Your task to perform on an android device: open app "Airtel Thanks" Image 0: 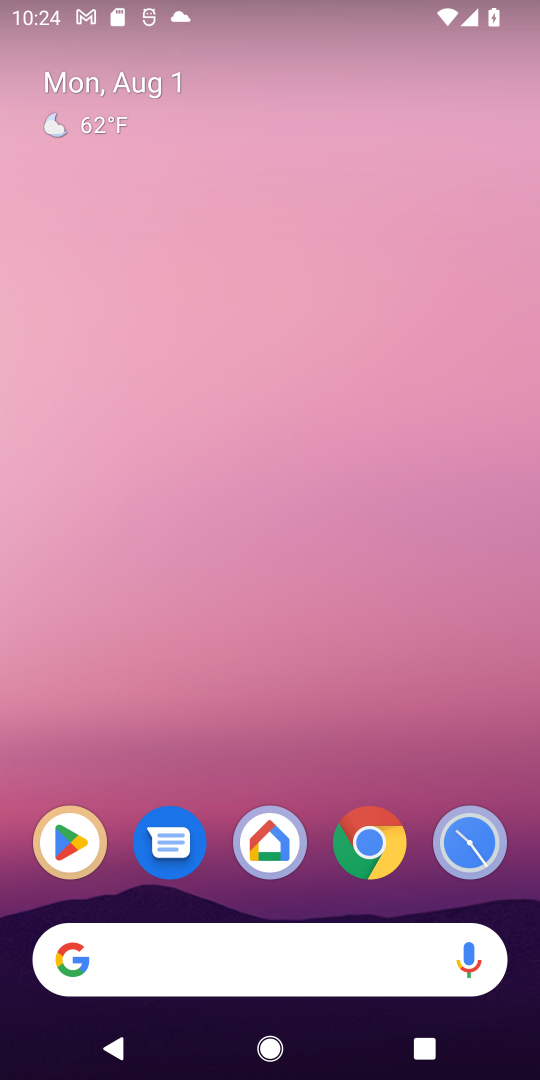
Step 0: click (69, 865)
Your task to perform on an android device: open app "Airtel Thanks" Image 1: 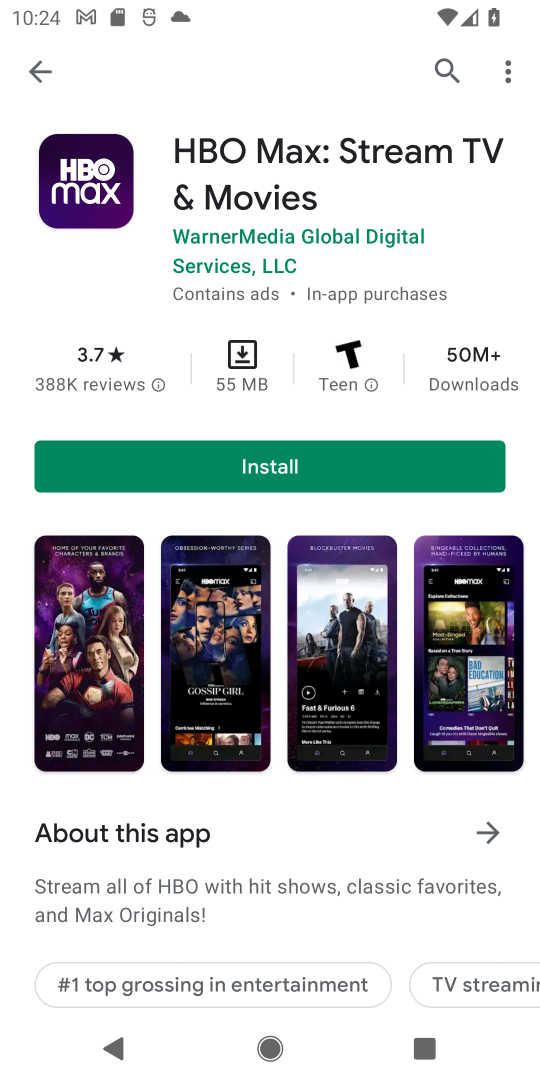
Step 1: click (441, 65)
Your task to perform on an android device: open app "Airtel Thanks" Image 2: 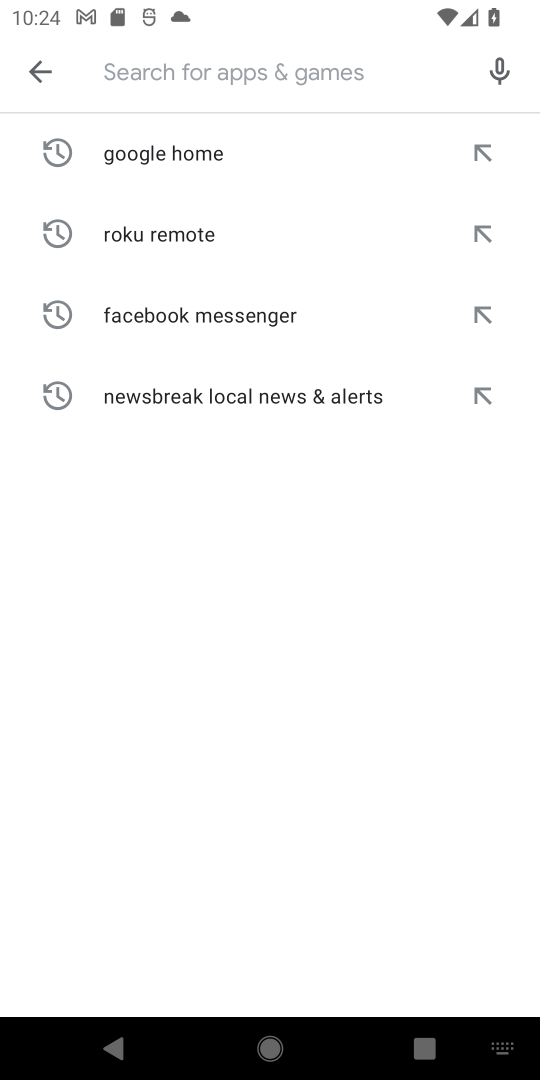
Step 2: click (161, 69)
Your task to perform on an android device: open app "Airtel Thanks" Image 3: 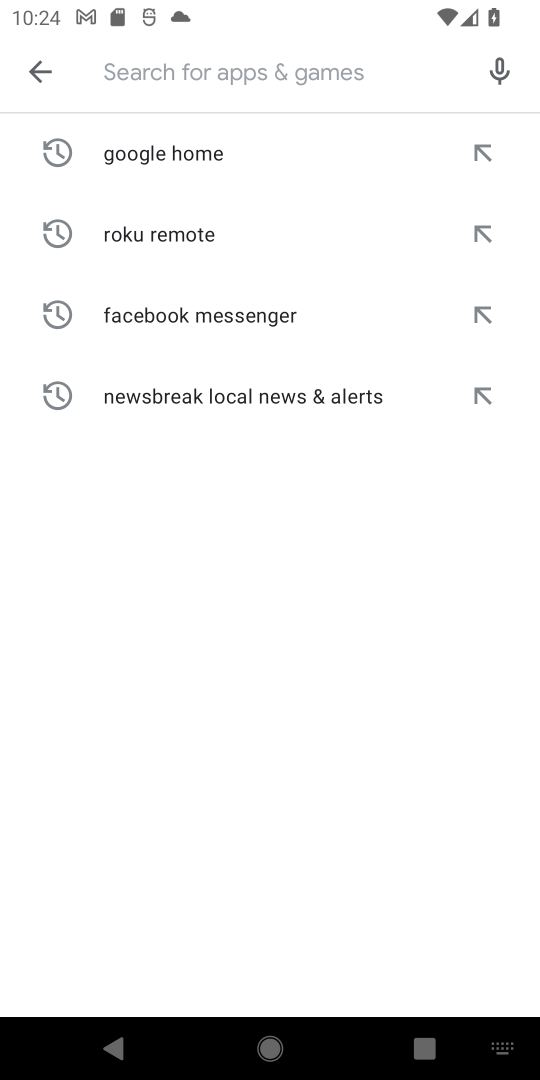
Step 3: type "Airtel Thanks"
Your task to perform on an android device: open app "Airtel Thanks" Image 4: 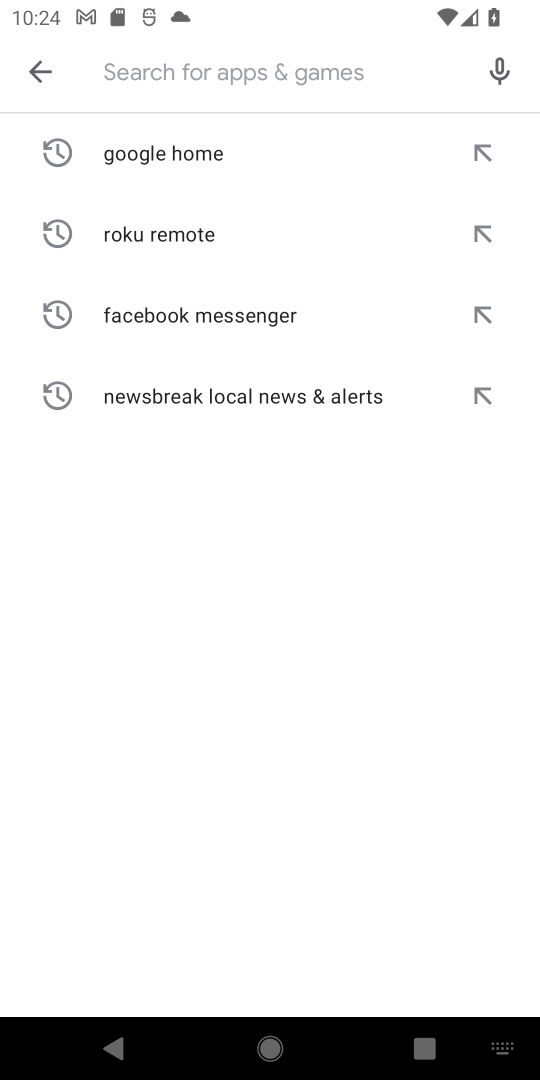
Step 4: click (207, 572)
Your task to perform on an android device: open app "Airtel Thanks" Image 5: 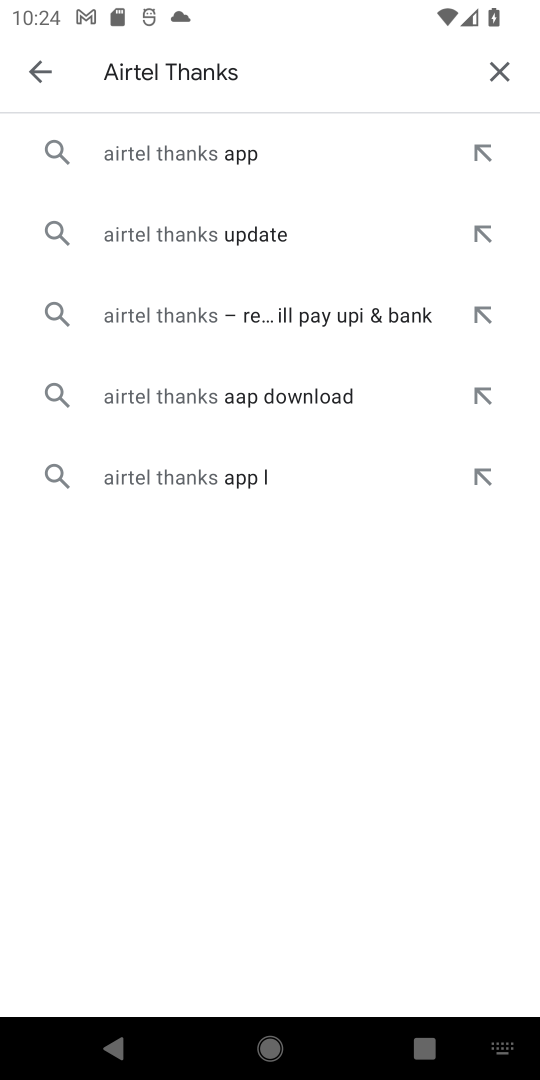
Step 5: click (180, 143)
Your task to perform on an android device: open app "Airtel Thanks" Image 6: 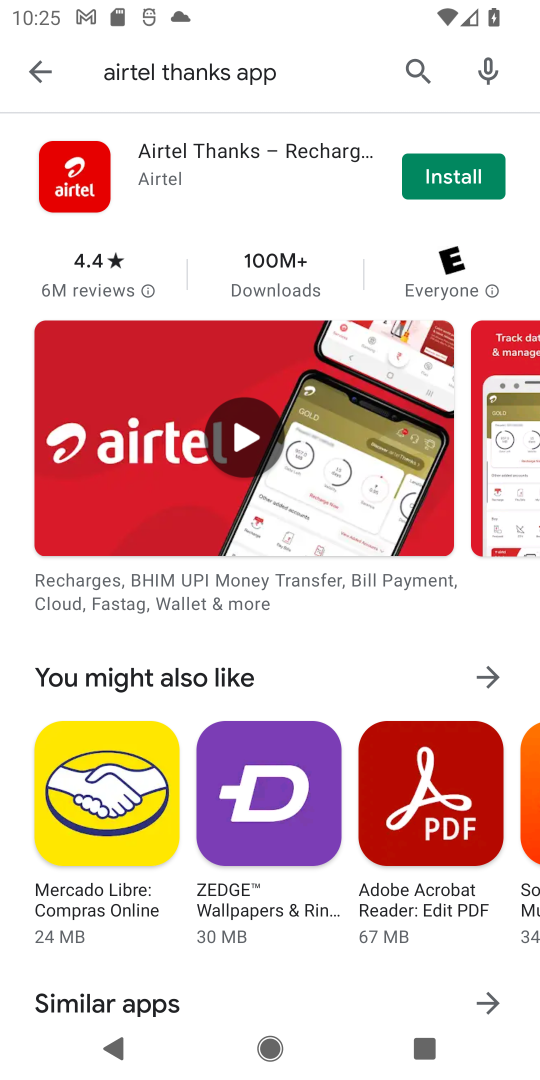
Step 6: task complete